Your task to perform on an android device: Set the phone to "Do not disturb". Image 0: 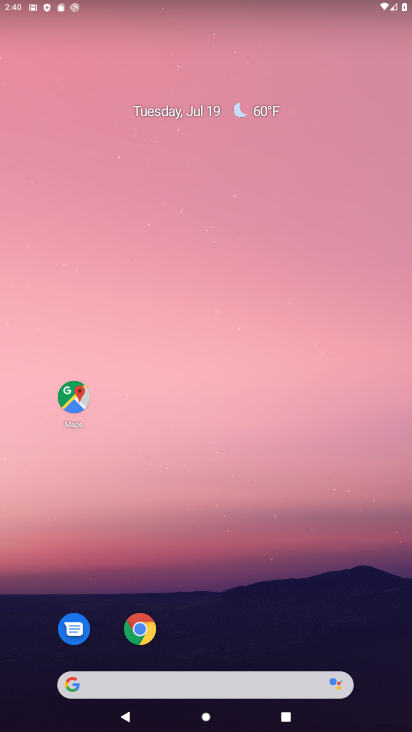
Step 0: drag from (262, 1) to (266, 154)
Your task to perform on an android device: Set the phone to "Do not disturb". Image 1: 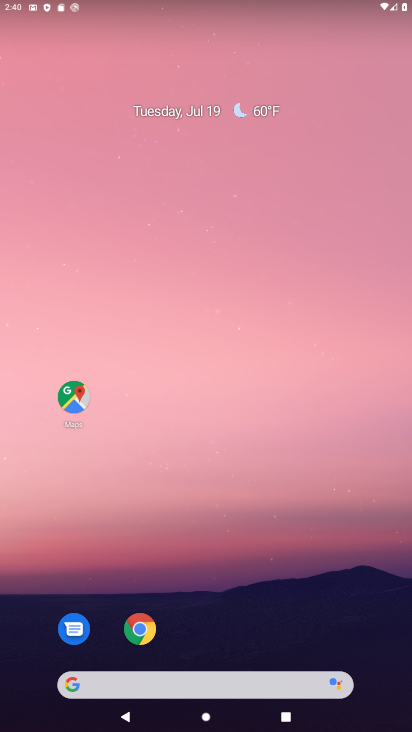
Step 1: drag from (265, 1) to (267, 199)
Your task to perform on an android device: Set the phone to "Do not disturb". Image 2: 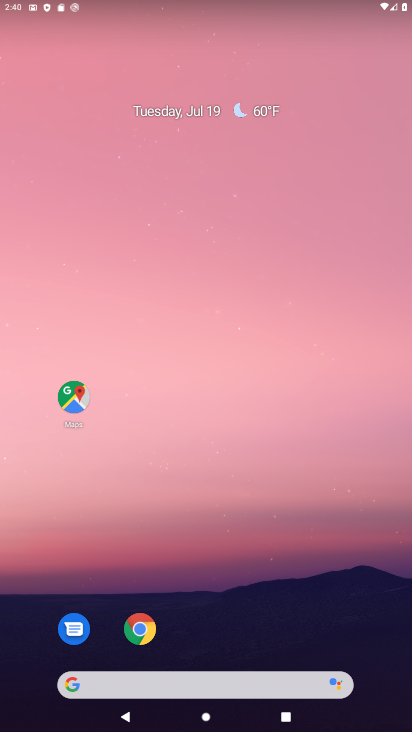
Step 2: drag from (309, 2) to (314, 346)
Your task to perform on an android device: Set the phone to "Do not disturb". Image 3: 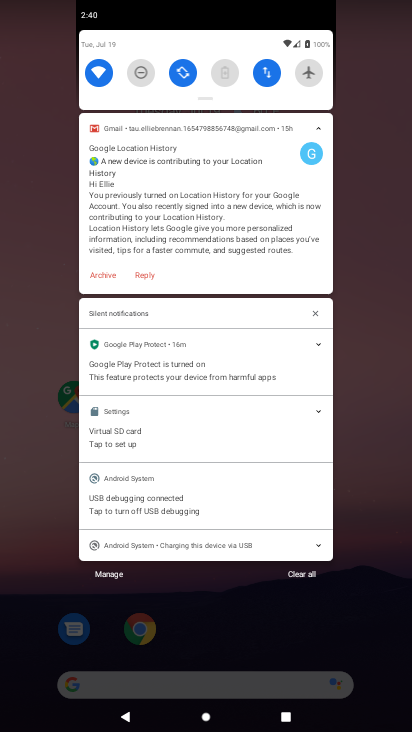
Step 3: drag from (259, 89) to (270, 282)
Your task to perform on an android device: Set the phone to "Do not disturb". Image 4: 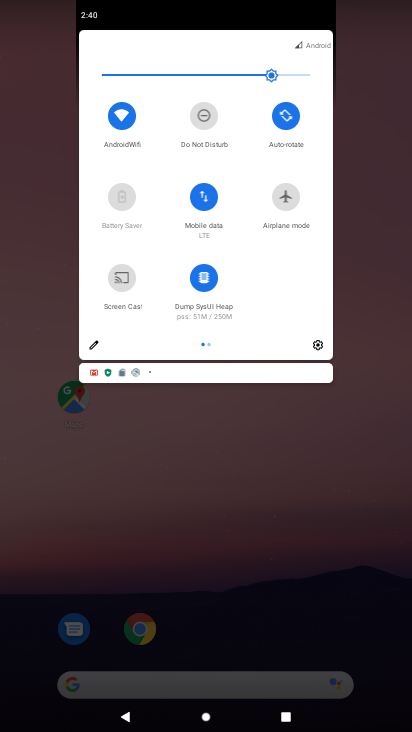
Step 4: click (199, 121)
Your task to perform on an android device: Set the phone to "Do not disturb". Image 5: 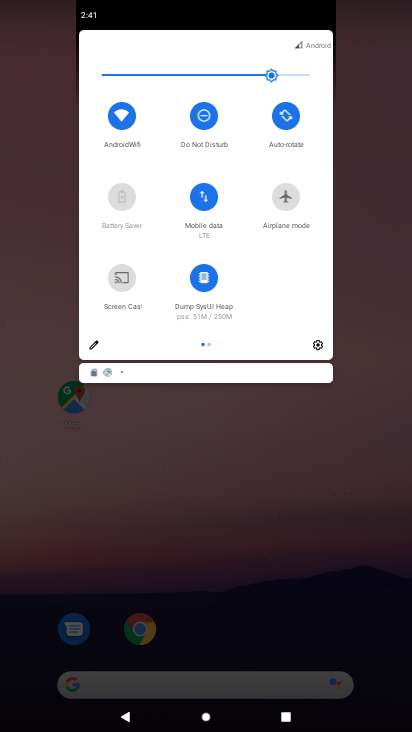
Step 5: task complete